Your task to perform on an android device: What's on my calendar tomorrow? Image 0: 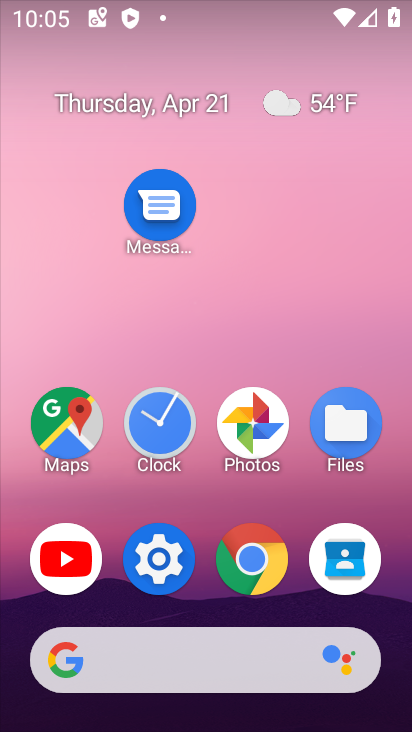
Step 0: drag from (202, 706) to (183, 75)
Your task to perform on an android device: What's on my calendar tomorrow? Image 1: 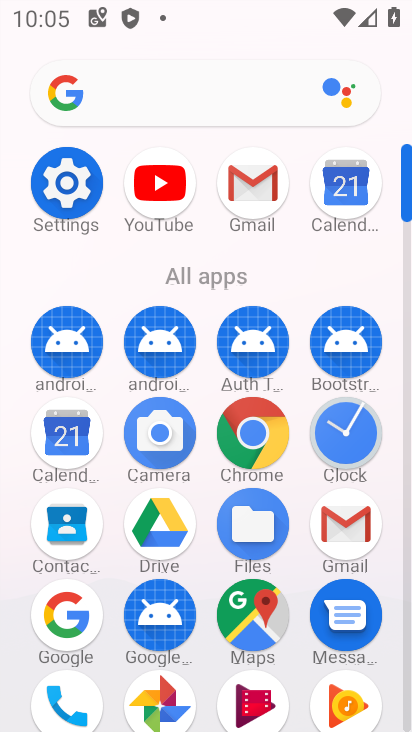
Step 1: click (60, 427)
Your task to perform on an android device: What's on my calendar tomorrow? Image 2: 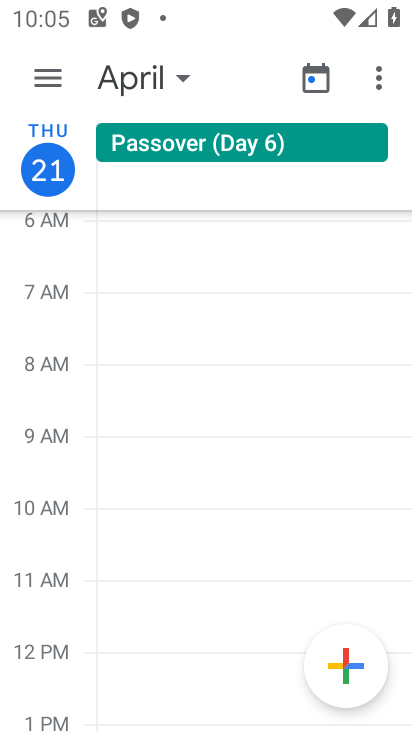
Step 2: click (179, 78)
Your task to perform on an android device: What's on my calendar tomorrow? Image 3: 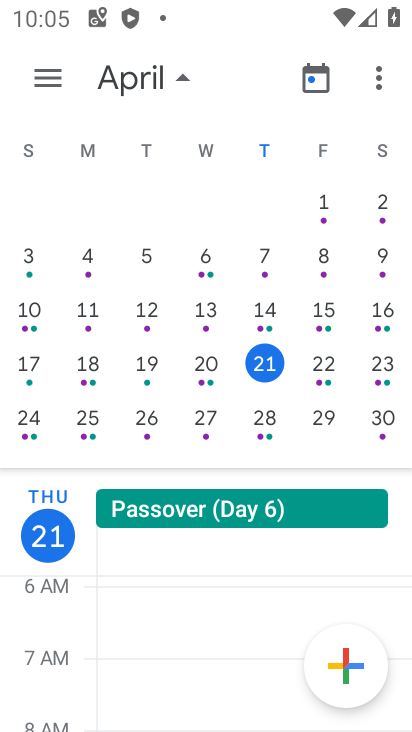
Step 3: click (324, 359)
Your task to perform on an android device: What's on my calendar tomorrow? Image 4: 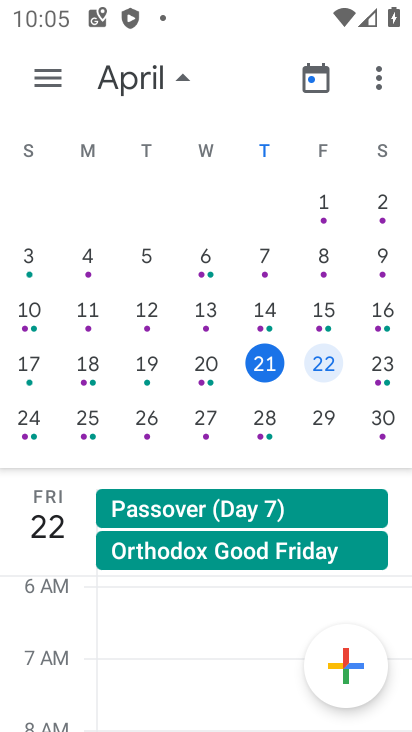
Step 4: task complete